Your task to perform on an android device: Go to accessibility settings Image 0: 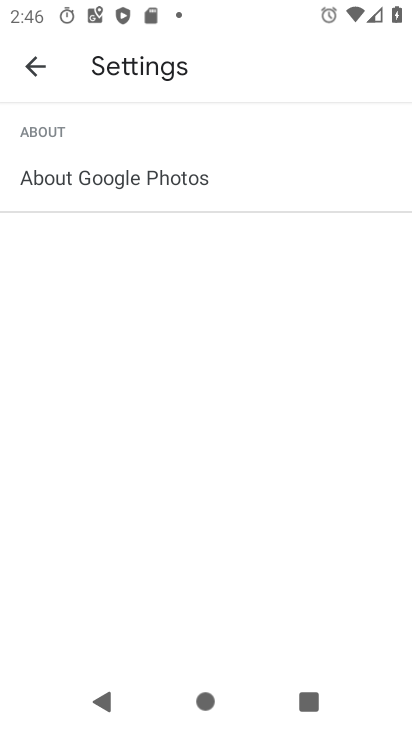
Step 0: press home button
Your task to perform on an android device: Go to accessibility settings Image 1: 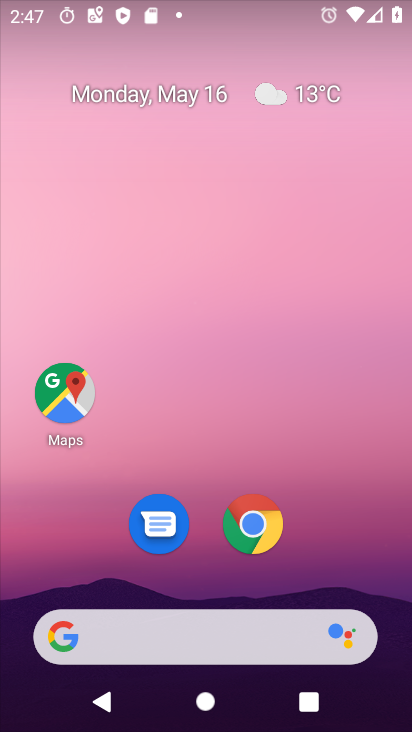
Step 1: drag from (197, 480) to (230, 120)
Your task to perform on an android device: Go to accessibility settings Image 2: 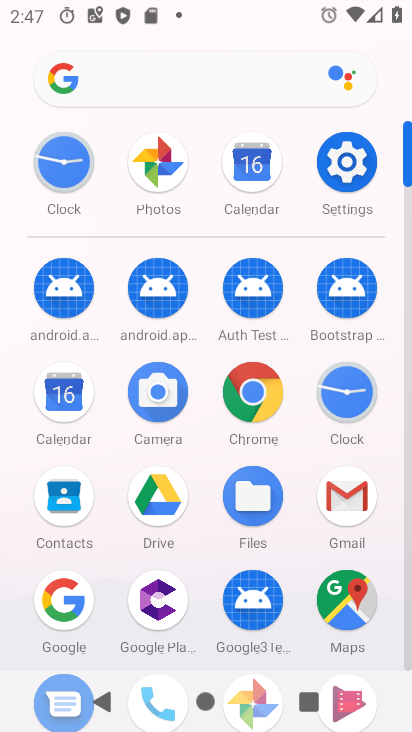
Step 2: click (350, 166)
Your task to perform on an android device: Go to accessibility settings Image 3: 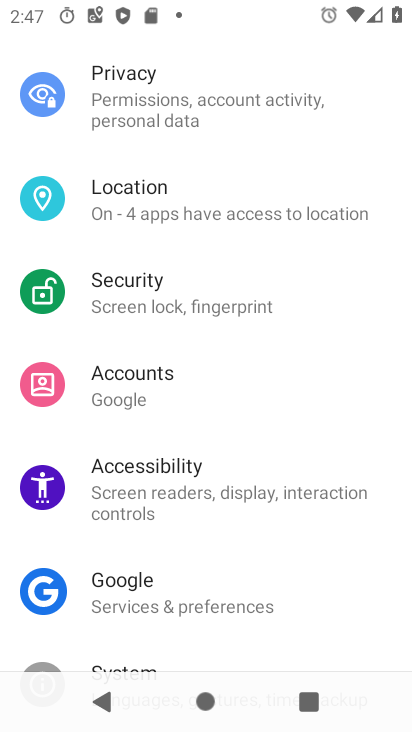
Step 3: click (214, 471)
Your task to perform on an android device: Go to accessibility settings Image 4: 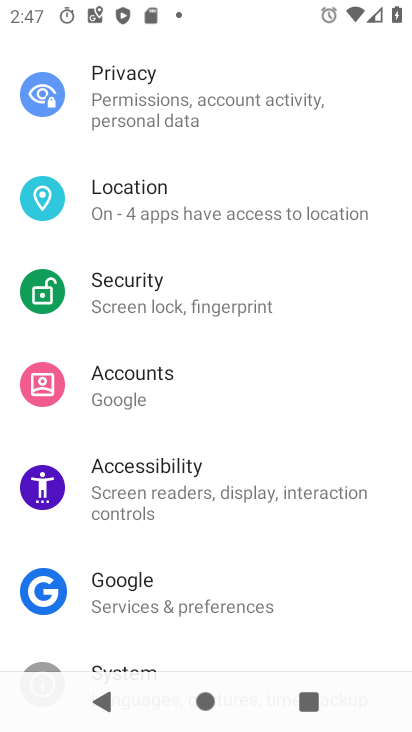
Step 4: click (248, 487)
Your task to perform on an android device: Go to accessibility settings Image 5: 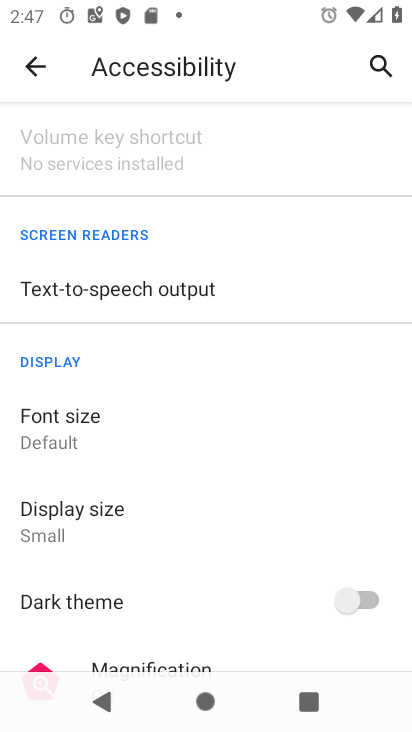
Step 5: task complete